Your task to perform on an android device: Open notification settings Image 0: 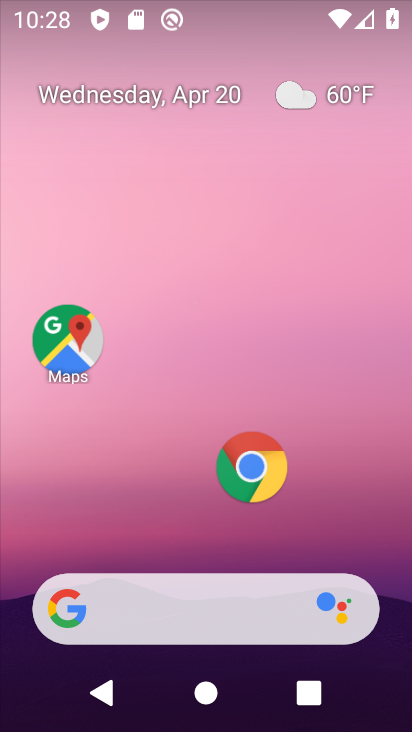
Step 0: drag from (304, 469) to (356, 95)
Your task to perform on an android device: Open notification settings Image 1: 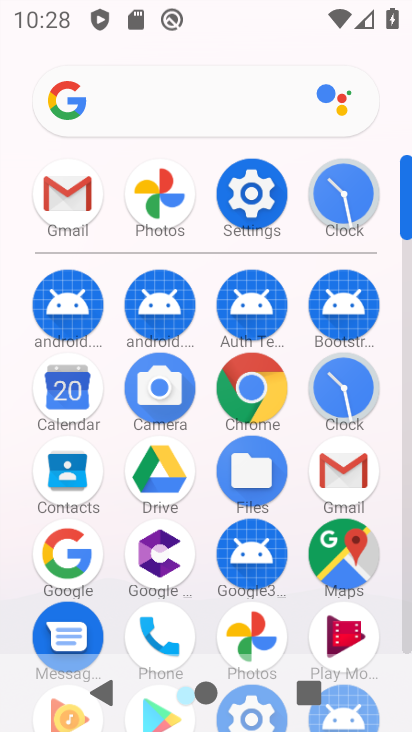
Step 1: click (247, 204)
Your task to perform on an android device: Open notification settings Image 2: 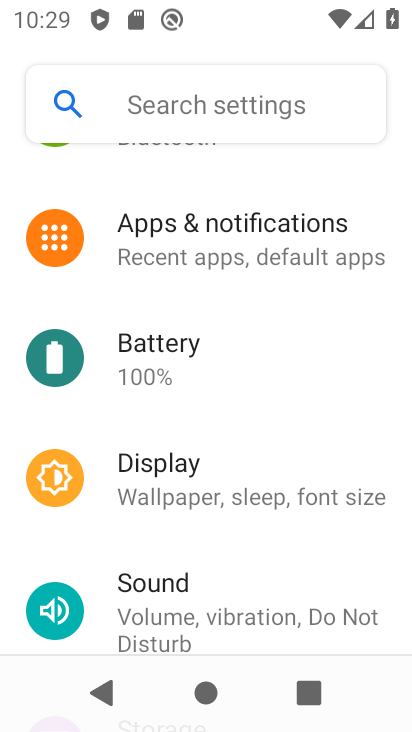
Step 2: click (240, 221)
Your task to perform on an android device: Open notification settings Image 3: 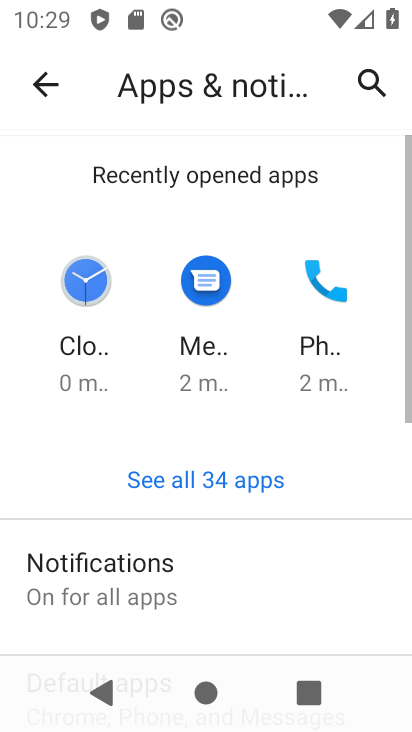
Step 3: click (95, 570)
Your task to perform on an android device: Open notification settings Image 4: 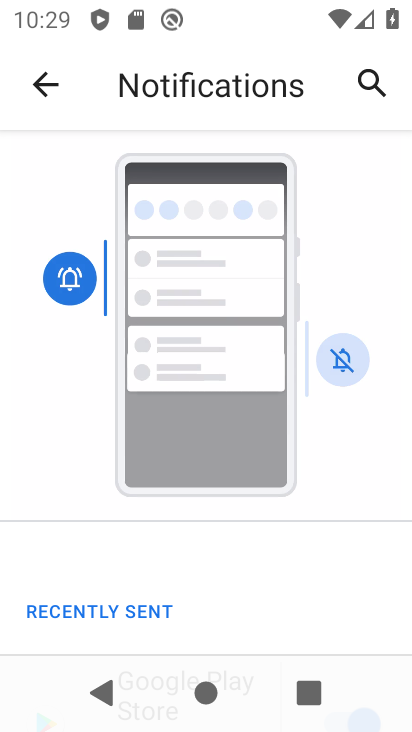
Step 4: task complete